Your task to perform on an android device: Do I have any events tomorrow? Image 0: 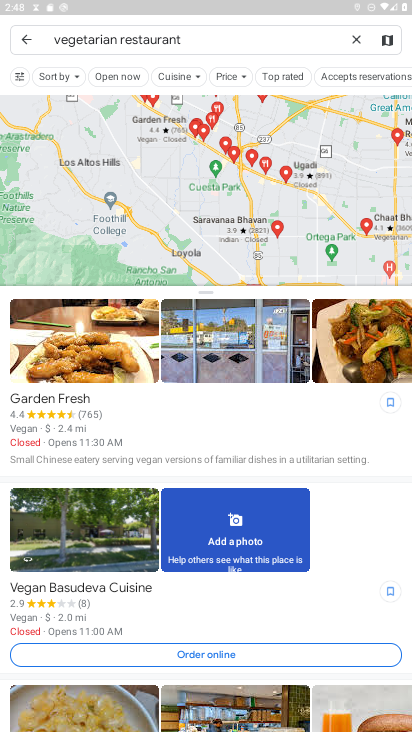
Step 0: press home button
Your task to perform on an android device: Do I have any events tomorrow? Image 1: 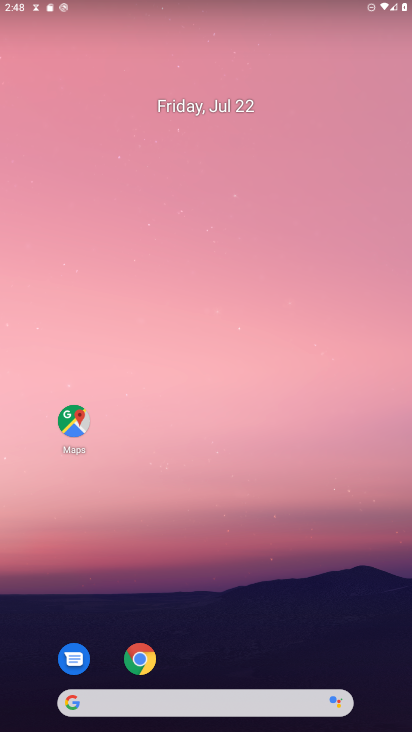
Step 1: drag from (307, 602) to (288, 0)
Your task to perform on an android device: Do I have any events tomorrow? Image 2: 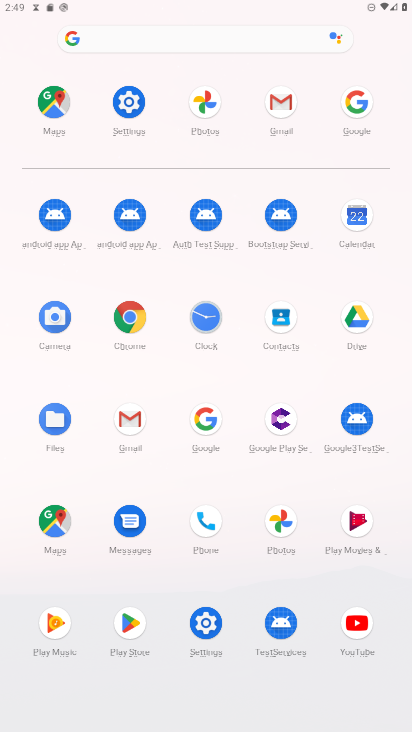
Step 2: click (354, 228)
Your task to perform on an android device: Do I have any events tomorrow? Image 3: 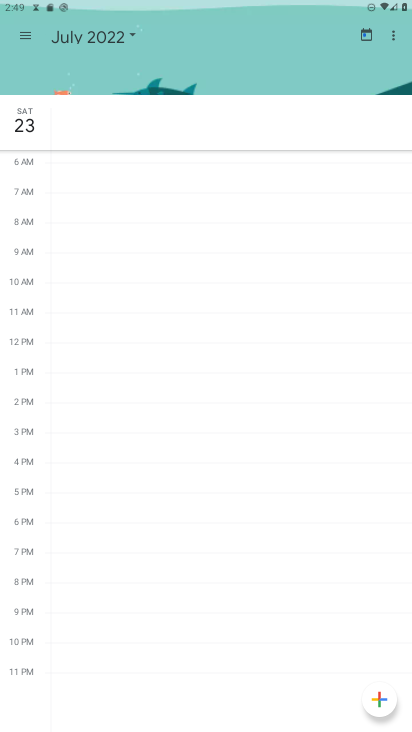
Step 3: click (69, 39)
Your task to perform on an android device: Do I have any events tomorrow? Image 4: 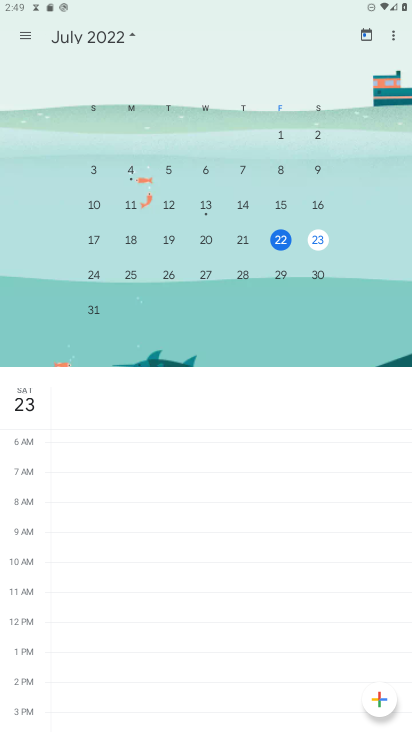
Step 4: click (319, 237)
Your task to perform on an android device: Do I have any events tomorrow? Image 5: 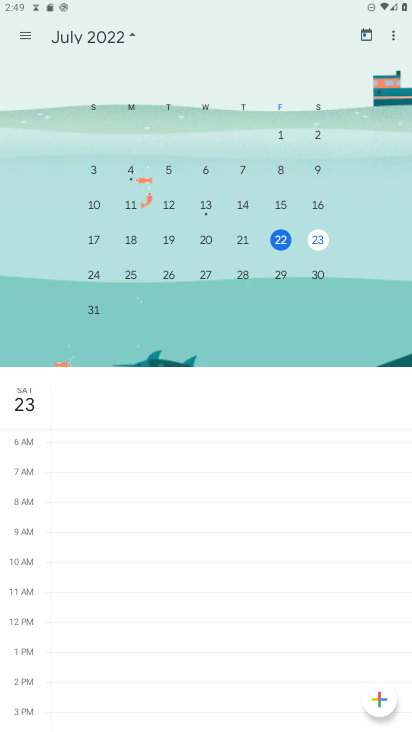
Step 5: task complete